Your task to perform on an android device: Go to eBay Image 0: 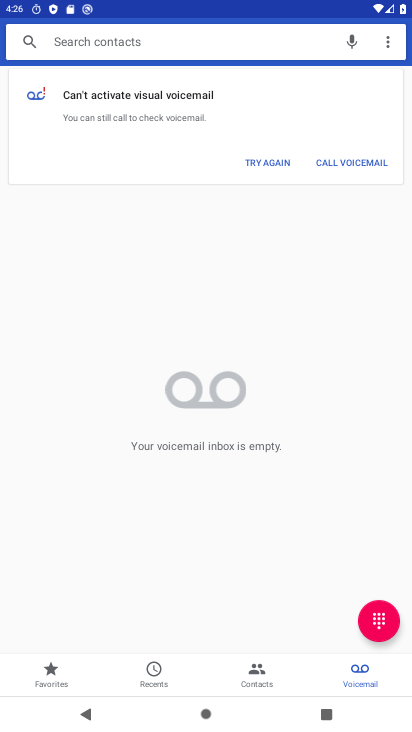
Step 0: press home button
Your task to perform on an android device: Go to eBay Image 1: 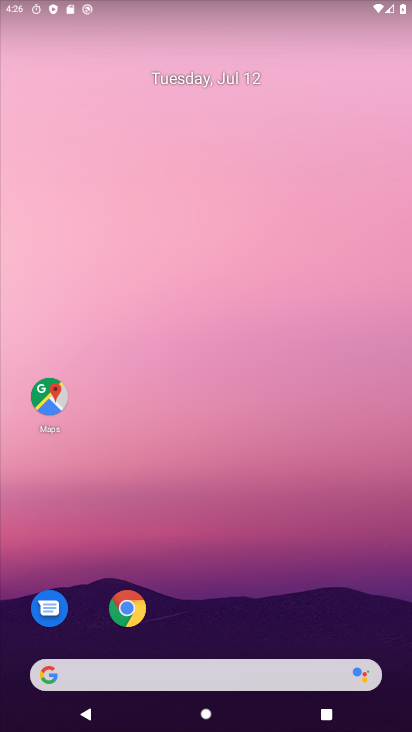
Step 1: click (133, 606)
Your task to perform on an android device: Go to eBay Image 2: 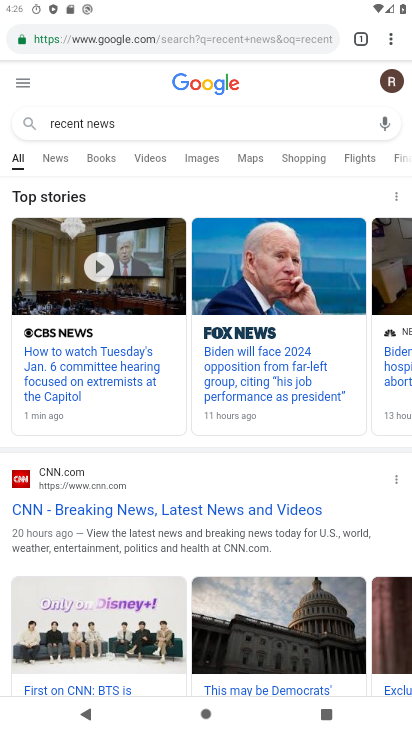
Step 2: click (363, 33)
Your task to perform on an android device: Go to eBay Image 3: 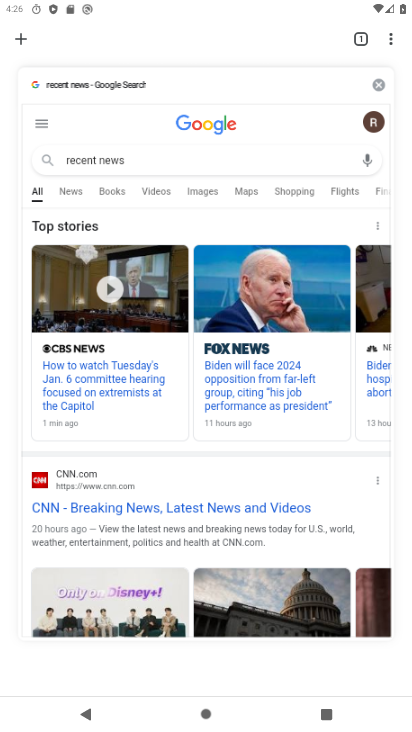
Step 3: click (17, 38)
Your task to perform on an android device: Go to eBay Image 4: 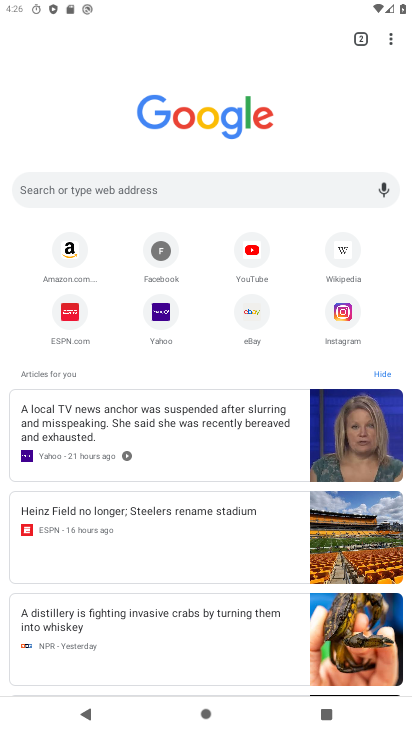
Step 4: click (261, 315)
Your task to perform on an android device: Go to eBay Image 5: 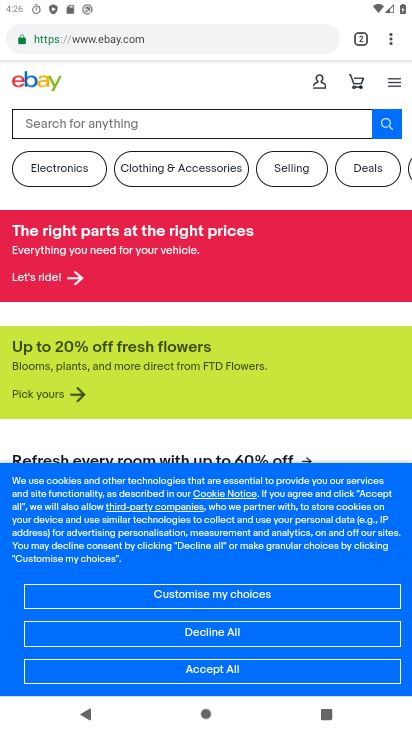
Step 5: task complete